Your task to perform on an android device: turn on location history Image 0: 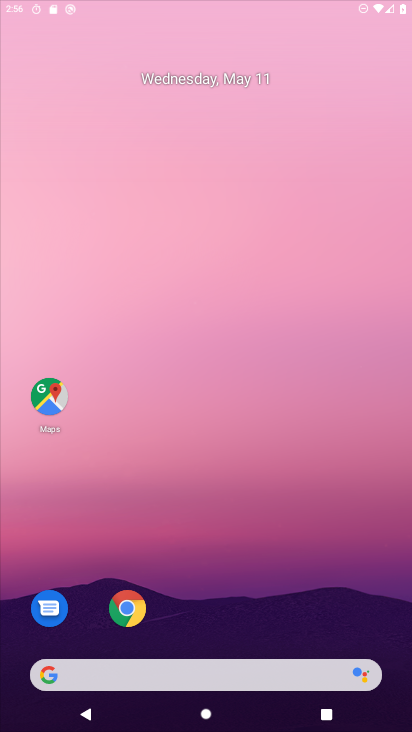
Step 0: press home button
Your task to perform on an android device: turn on location history Image 1: 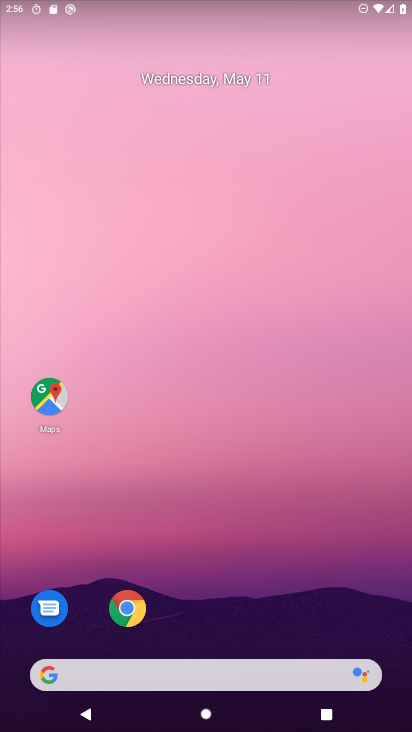
Step 1: task complete